Your task to perform on an android device: turn off location Image 0: 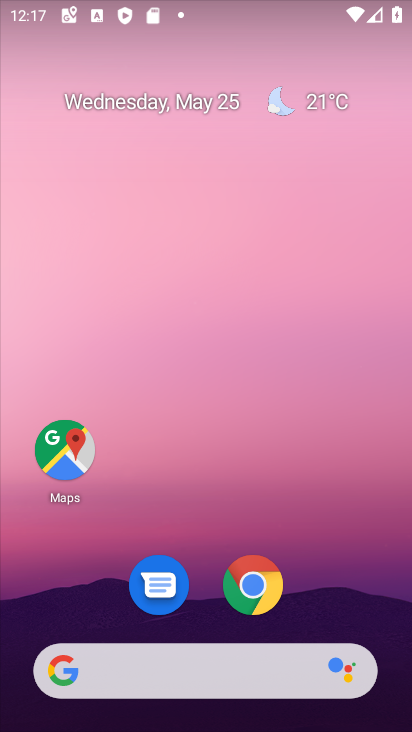
Step 0: drag from (219, 509) to (239, 20)
Your task to perform on an android device: turn off location Image 1: 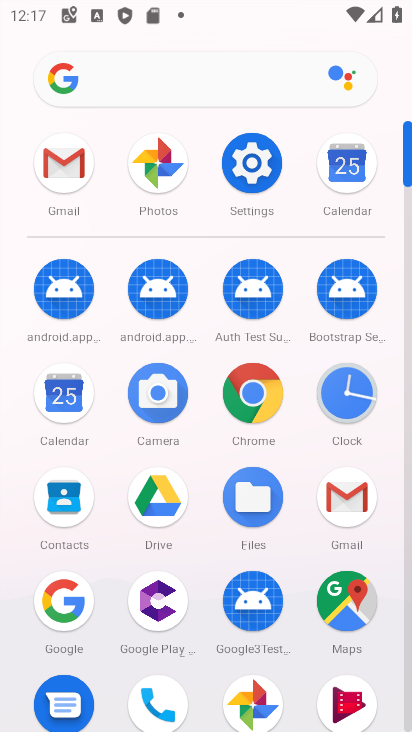
Step 1: click (254, 158)
Your task to perform on an android device: turn off location Image 2: 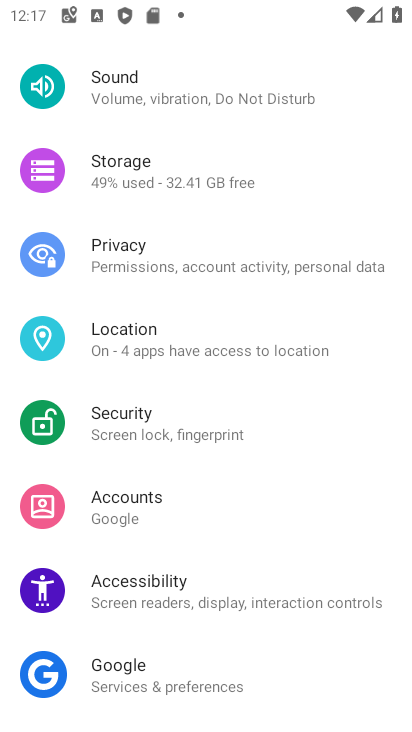
Step 2: click (203, 335)
Your task to perform on an android device: turn off location Image 3: 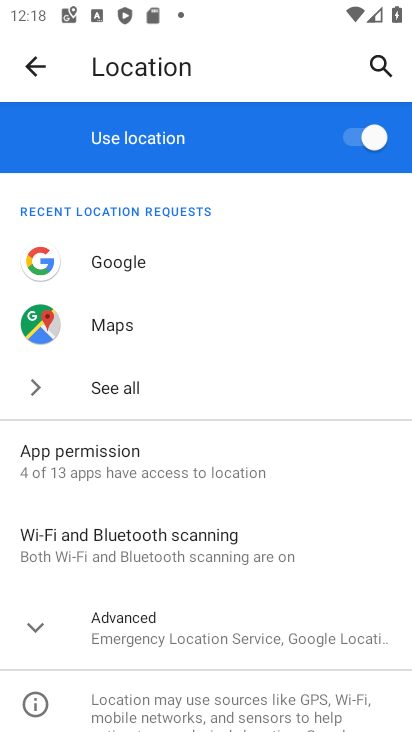
Step 3: click (366, 133)
Your task to perform on an android device: turn off location Image 4: 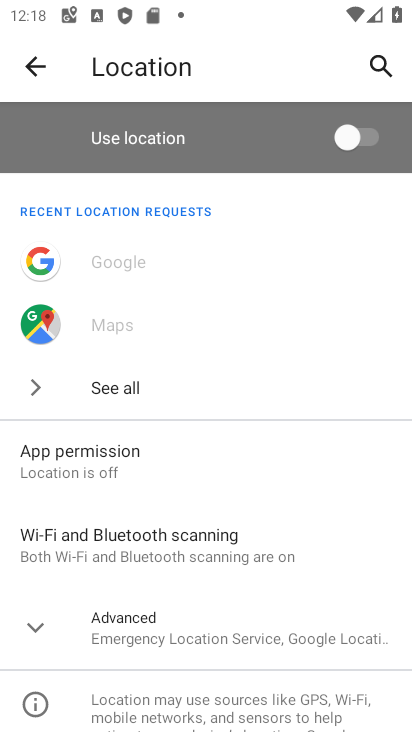
Step 4: task complete